Your task to perform on an android device: turn off data saver in the chrome app Image 0: 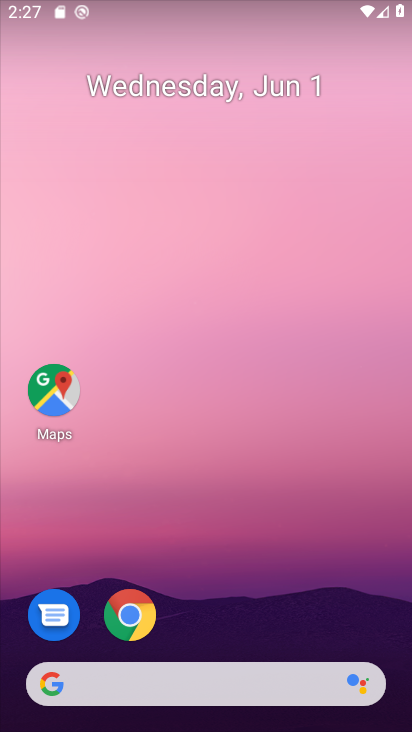
Step 0: click (131, 610)
Your task to perform on an android device: turn off data saver in the chrome app Image 1: 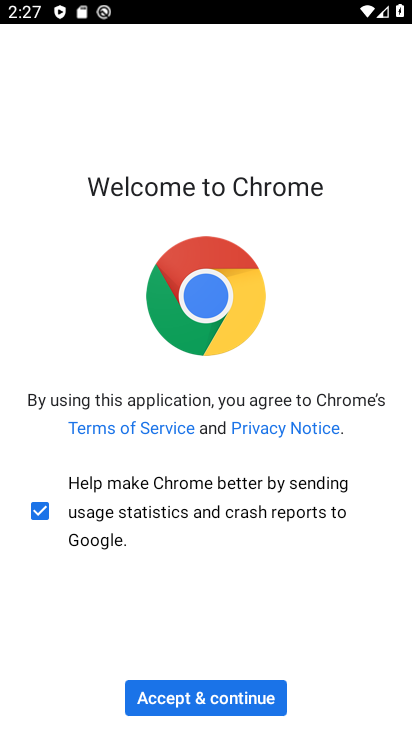
Step 1: click (213, 709)
Your task to perform on an android device: turn off data saver in the chrome app Image 2: 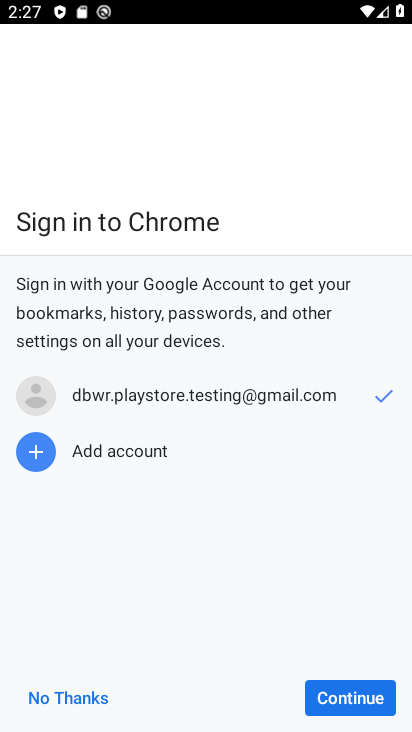
Step 2: click (316, 701)
Your task to perform on an android device: turn off data saver in the chrome app Image 3: 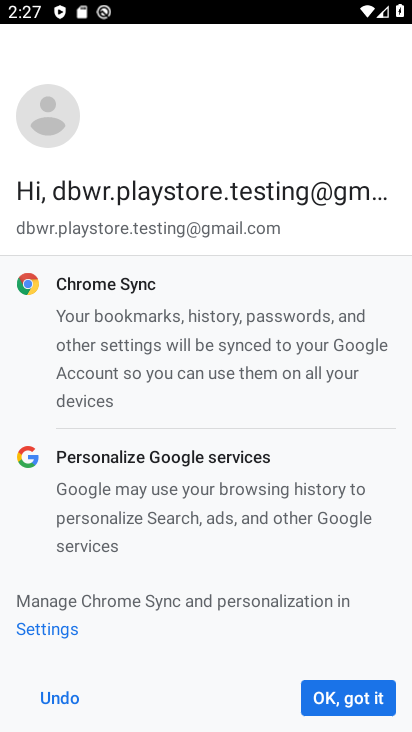
Step 3: click (316, 701)
Your task to perform on an android device: turn off data saver in the chrome app Image 4: 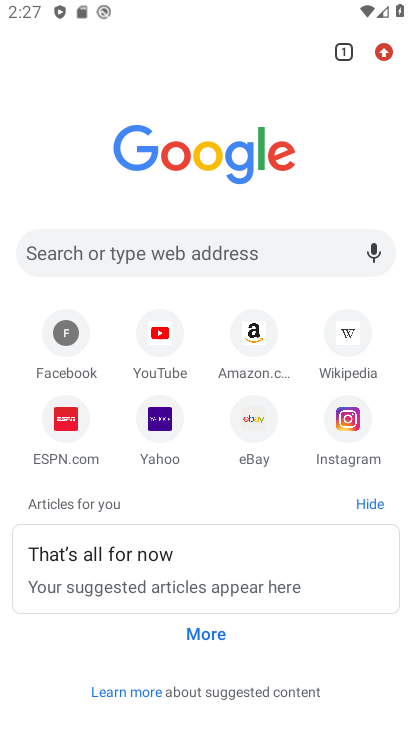
Step 4: click (387, 54)
Your task to perform on an android device: turn off data saver in the chrome app Image 5: 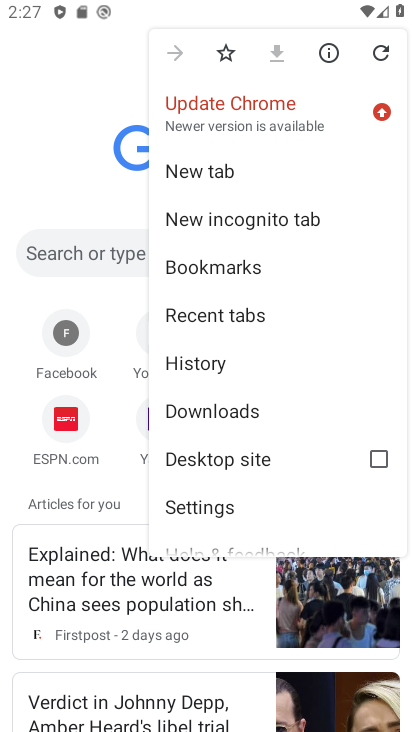
Step 5: click (227, 511)
Your task to perform on an android device: turn off data saver in the chrome app Image 6: 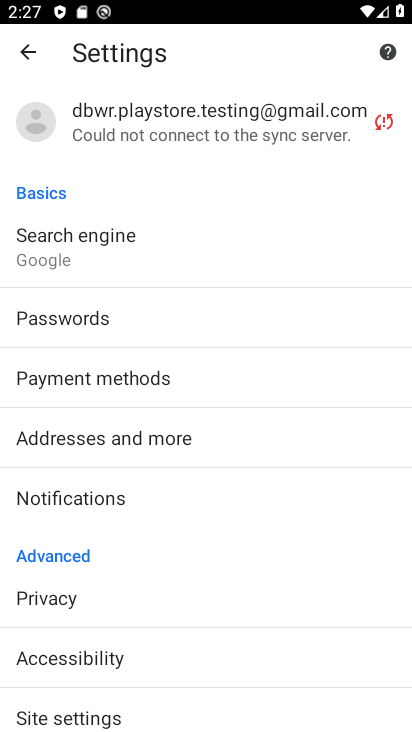
Step 6: drag from (236, 683) to (183, 335)
Your task to perform on an android device: turn off data saver in the chrome app Image 7: 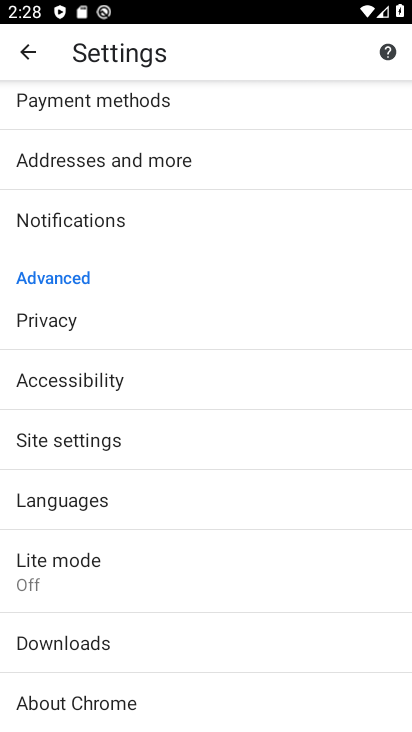
Step 7: click (159, 573)
Your task to perform on an android device: turn off data saver in the chrome app Image 8: 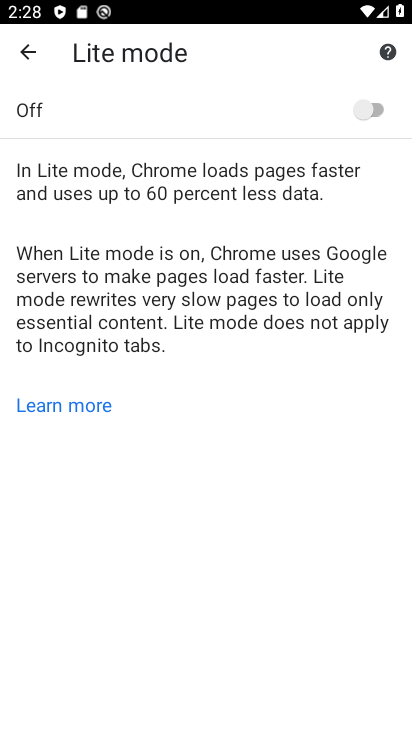
Step 8: task complete